Your task to perform on an android device: turn on the 24-hour format for clock Image 0: 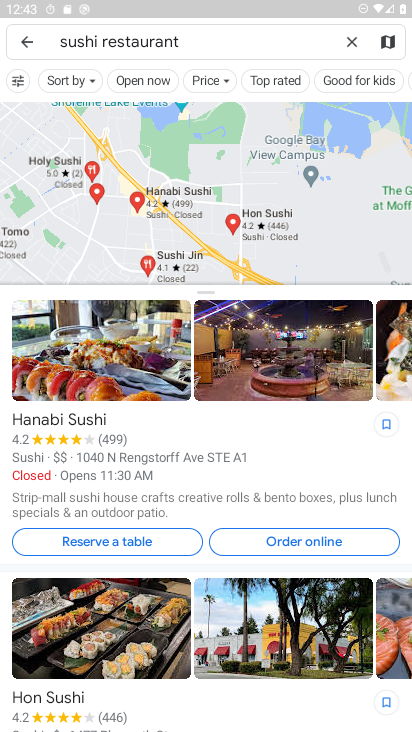
Step 0: press home button
Your task to perform on an android device: turn on the 24-hour format for clock Image 1: 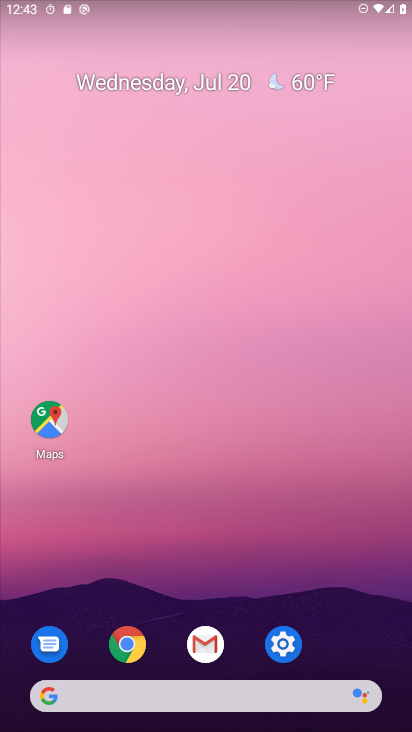
Step 1: drag from (241, 709) to (246, 214)
Your task to perform on an android device: turn on the 24-hour format for clock Image 2: 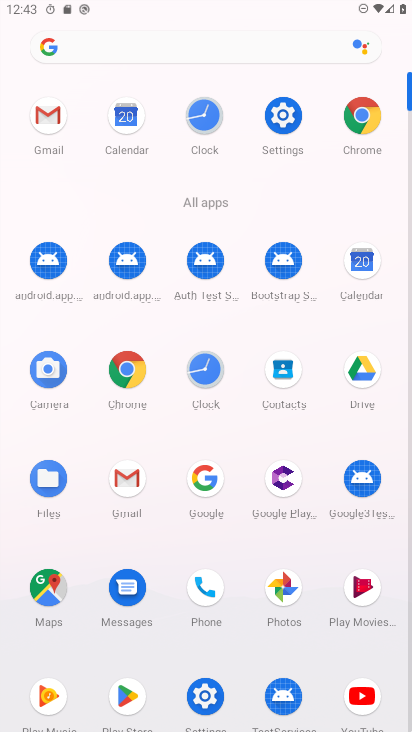
Step 2: click (214, 369)
Your task to perform on an android device: turn on the 24-hour format for clock Image 3: 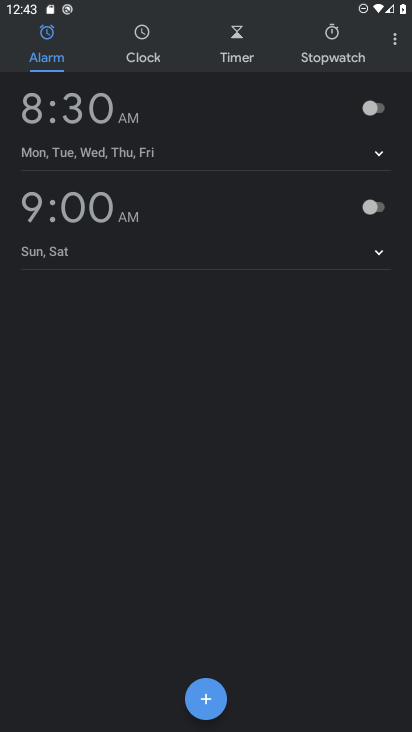
Step 3: click (391, 50)
Your task to perform on an android device: turn on the 24-hour format for clock Image 4: 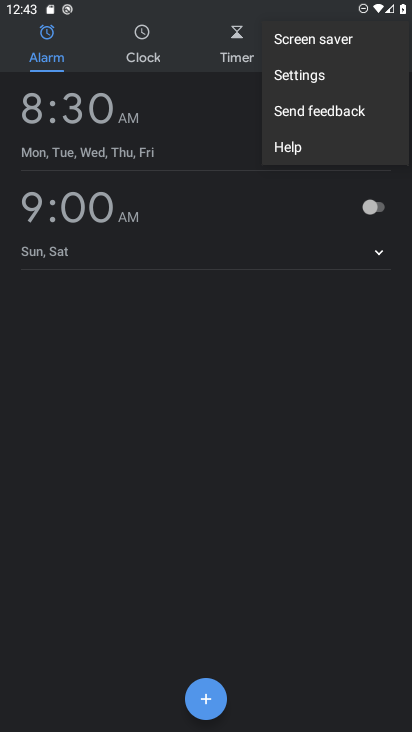
Step 4: click (334, 89)
Your task to perform on an android device: turn on the 24-hour format for clock Image 5: 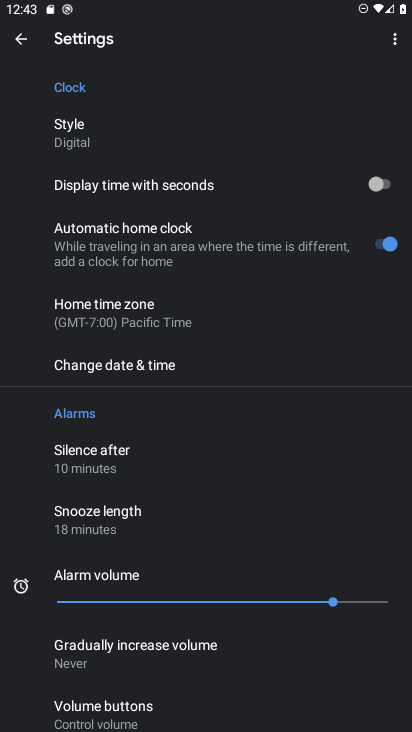
Step 5: click (106, 373)
Your task to perform on an android device: turn on the 24-hour format for clock Image 6: 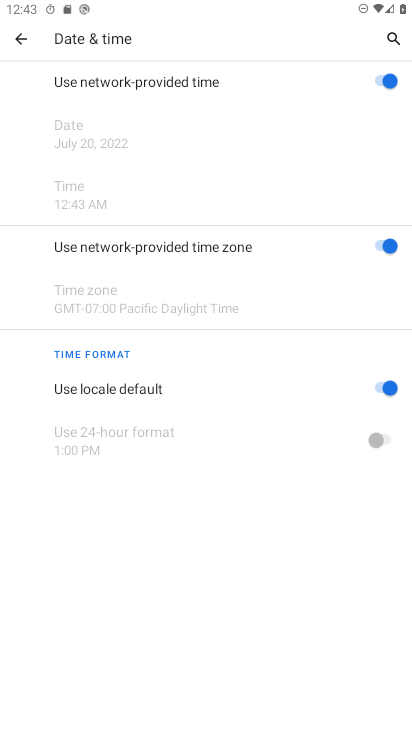
Step 6: click (397, 389)
Your task to perform on an android device: turn on the 24-hour format for clock Image 7: 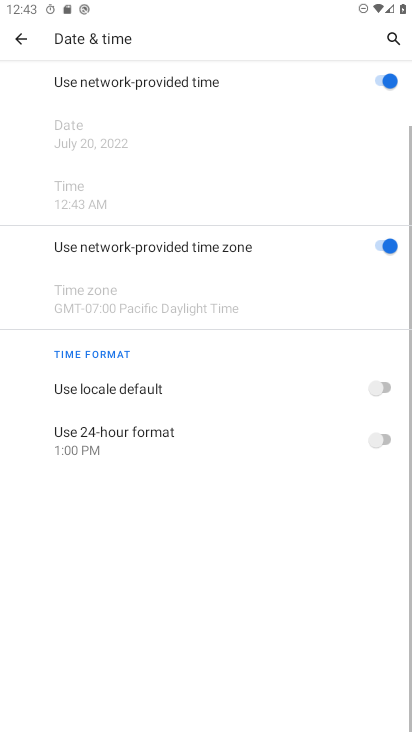
Step 7: click (383, 430)
Your task to perform on an android device: turn on the 24-hour format for clock Image 8: 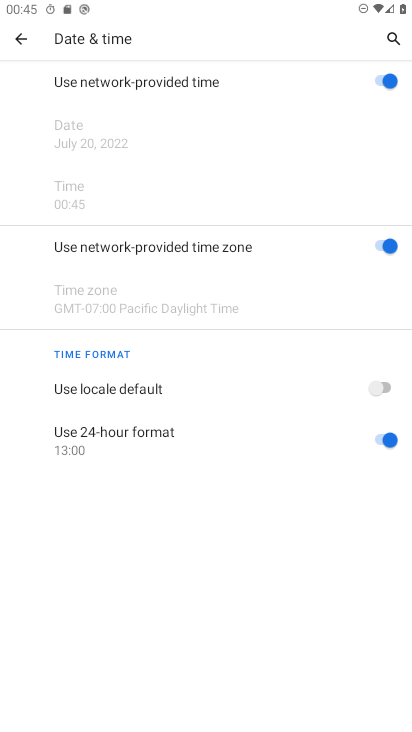
Step 8: task complete